Your task to perform on an android device: open a new tab in the chrome app Image 0: 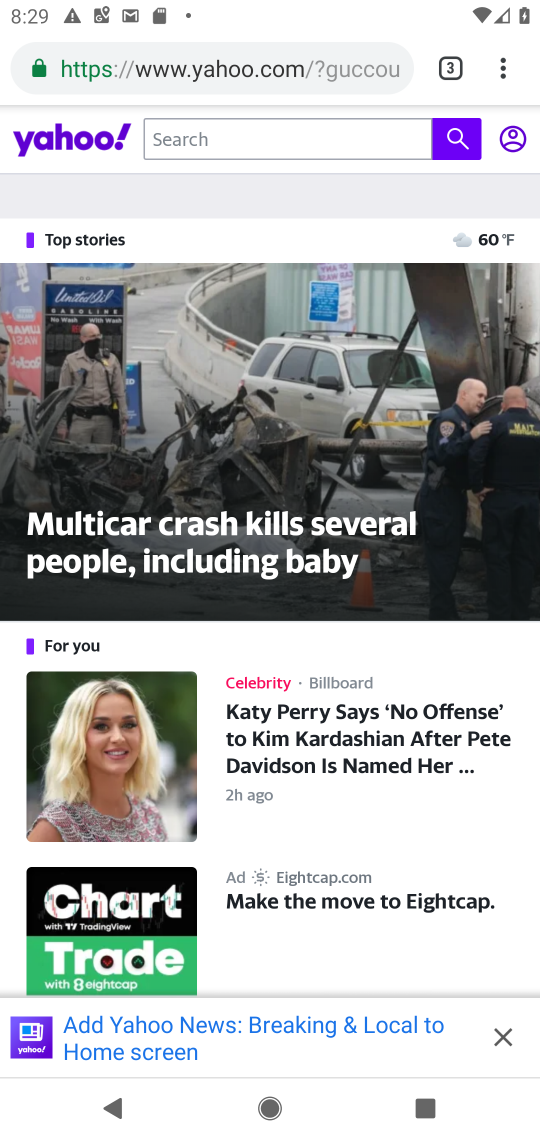
Step 0: drag from (500, 65) to (268, 229)
Your task to perform on an android device: open a new tab in the chrome app Image 1: 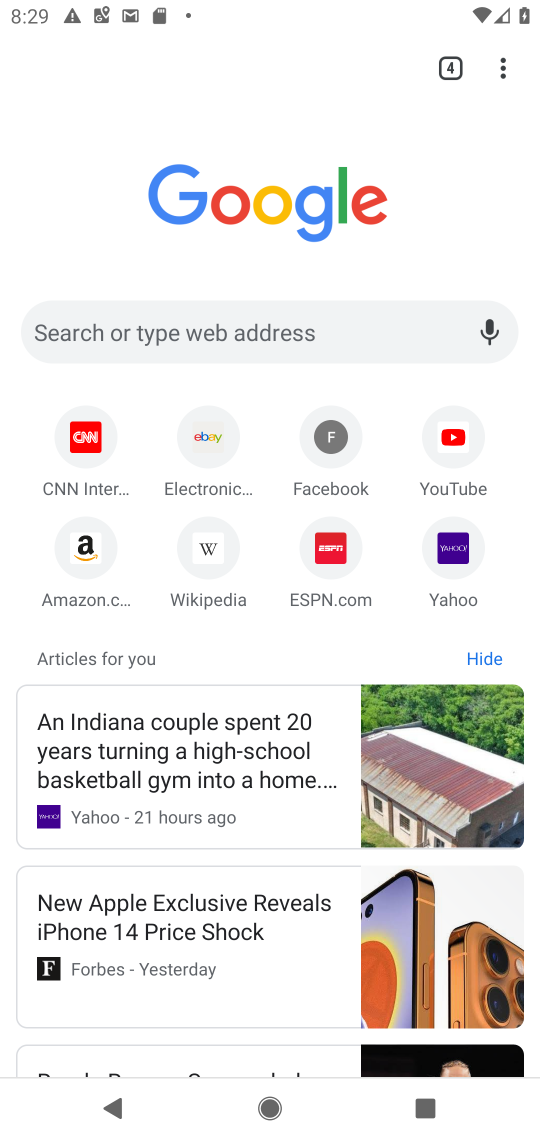
Step 1: task complete